Your task to perform on an android device: turn off sleep mode Image 0: 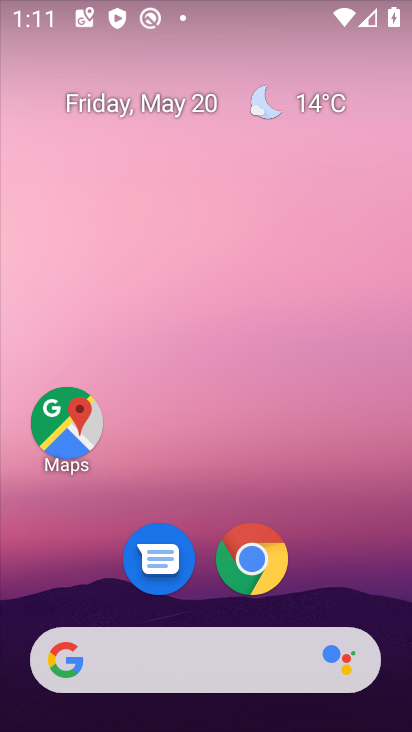
Step 0: drag from (346, 578) to (213, 102)
Your task to perform on an android device: turn off sleep mode Image 1: 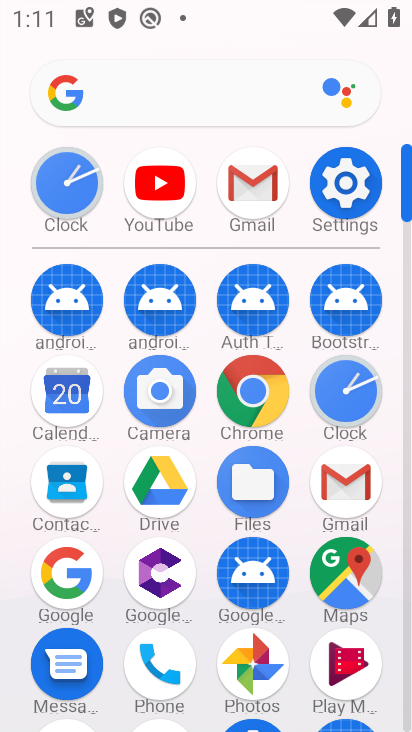
Step 1: click (326, 193)
Your task to perform on an android device: turn off sleep mode Image 2: 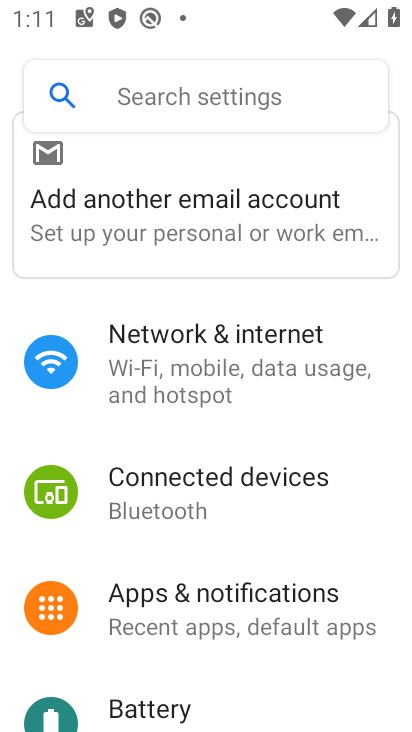
Step 2: drag from (261, 622) to (222, 390)
Your task to perform on an android device: turn off sleep mode Image 3: 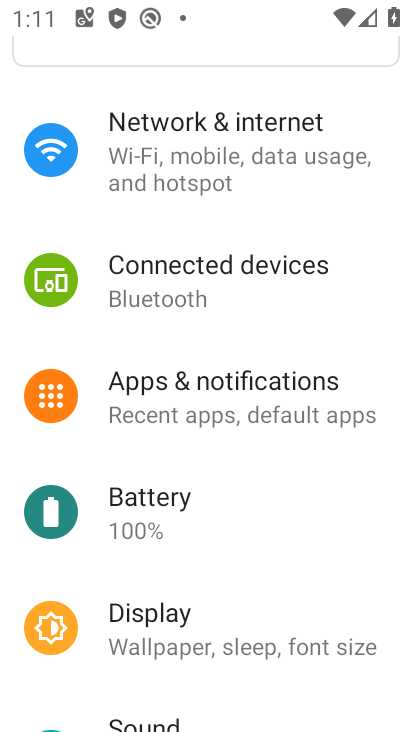
Step 3: click (261, 667)
Your task to perform on an android device: turn off sleep mode Image 4: 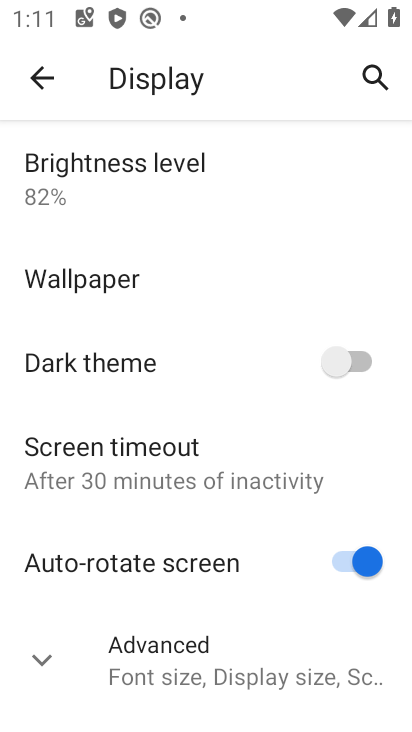
Step 4: click (205, 472)
Your task to perform on an android device: turn off sleep mode Image 5: 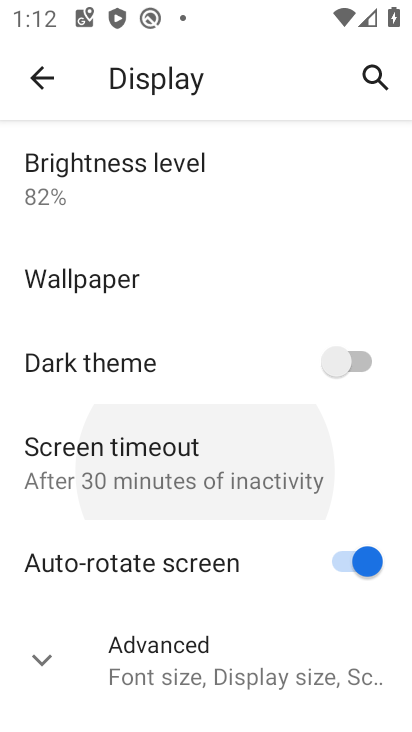
Step 5: click (205, 472)
Your task to perform on an android device: turn off sleep mode Image 6: 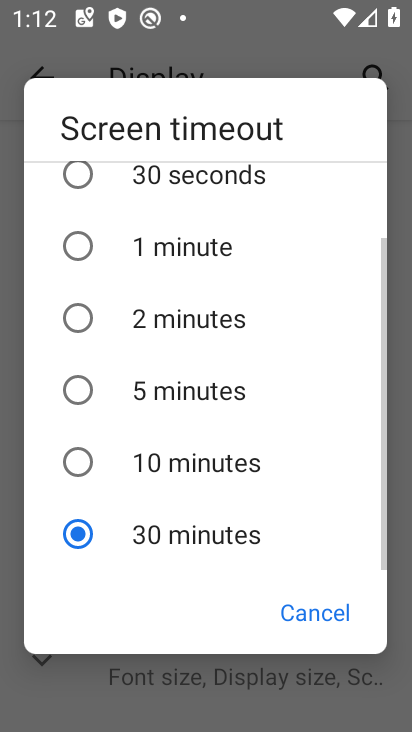
Step 6: task complete